Your task to perform on an android device: turn off improve location accuracy Image 0: 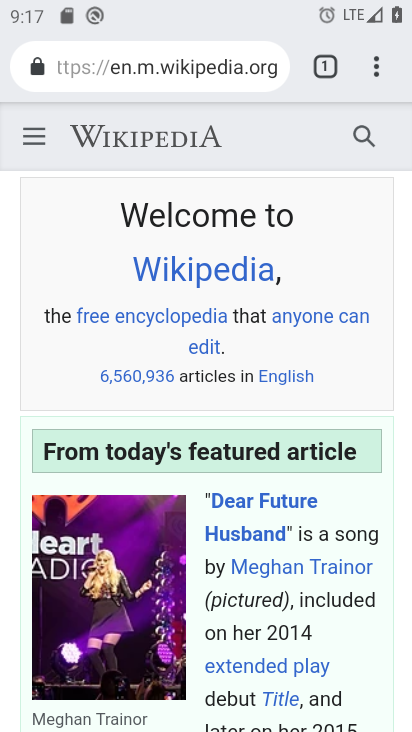
Step 0: press home button
Your task to perform on an android device: turn off improve location accuracy Image 1: 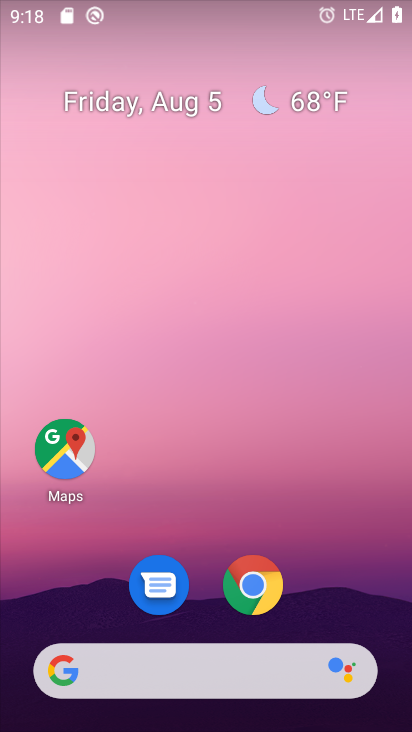
Step 1: drag from (320, 587) to (353, 20)
Your task to perform on an android device: turn off improve location accuracy Image 2: 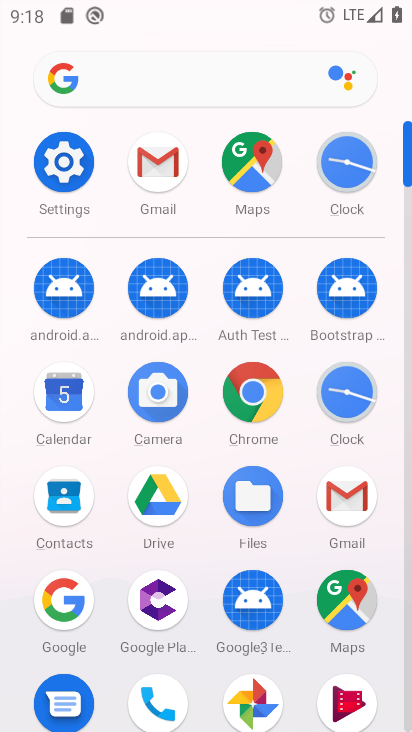
Step 2: click (62, 154)
Your task to perform on an android device: turn off improve location accuracy Image 3: 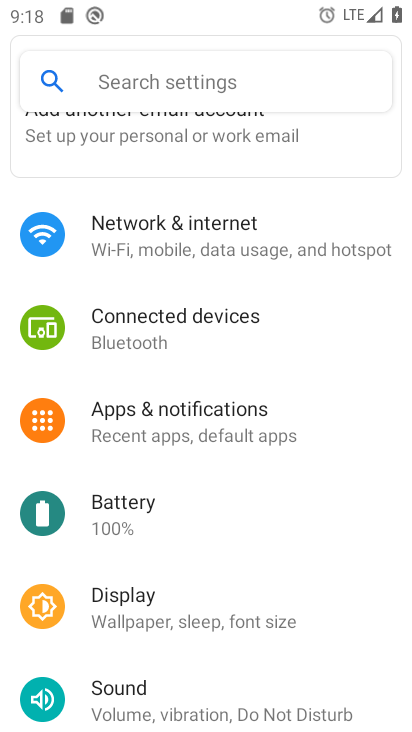
Step 3: drag from (196, 573) to (241, 17)
Your task to perform on an android device: turn off improve location accuracy Image 4: 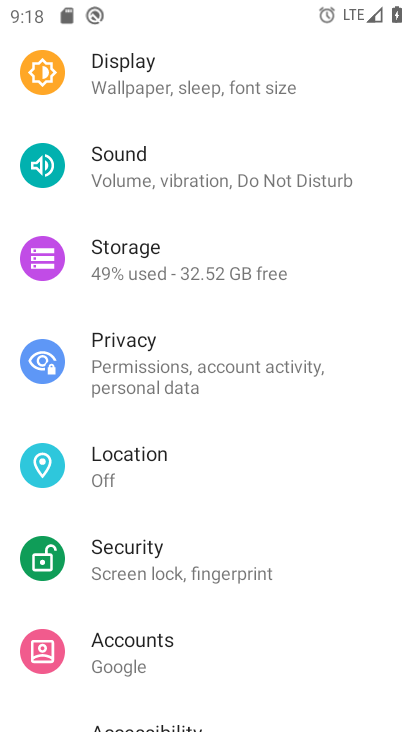
Step 4: click (167, 461)
Your task to perform on an android device: turn off improve location accuracy Image 5: 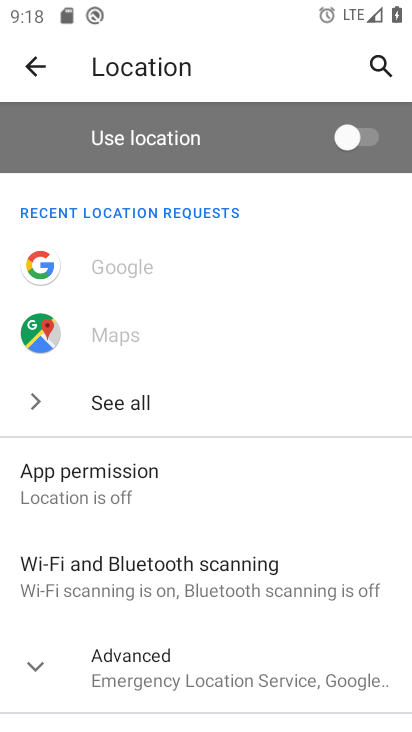
Step 5: click (34, 667)
Your task to perform on an android device: turn off improve location accuracy Image 6: 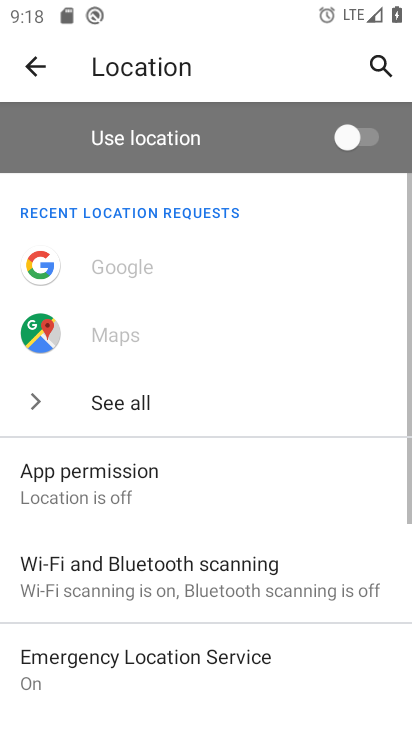
Step 6: drag from (227, 521) to (258, 209)
Your task to perform on an android device: turn off improve location accuracy Image 7: 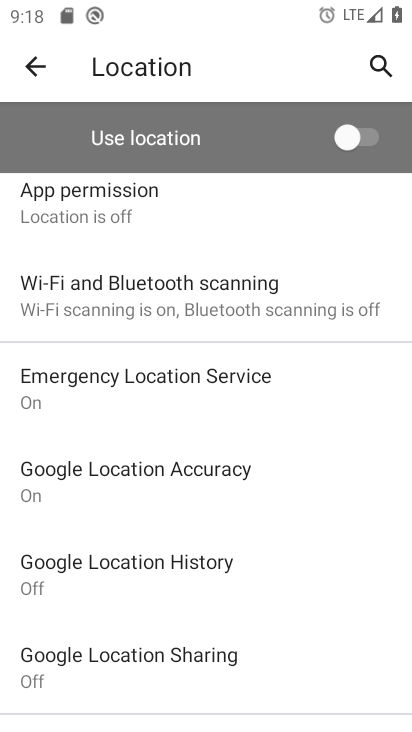
Step 7: click (184, 467)
Your task to perform on an android device: turn off improve location accuracy Image 8: 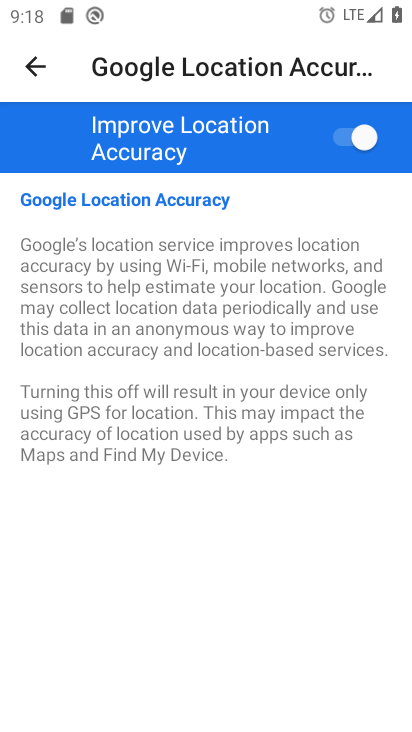
Step 8: click (344, 134)
Your task to perform on an android device: turn off improve location accuracy Image 9: 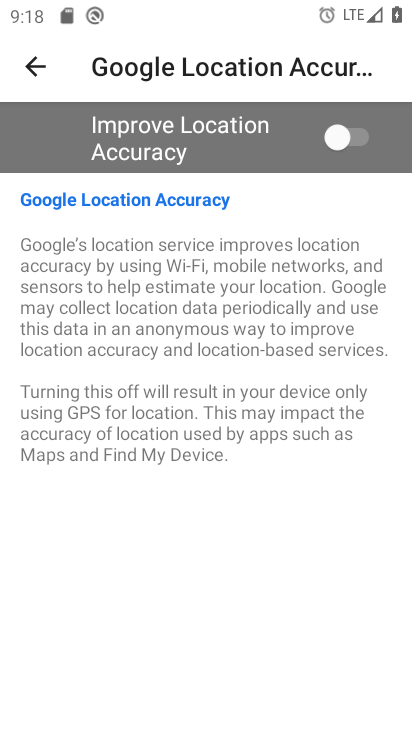
Step 9: task complete